Your task to perform on an android device: make emails show in primary in the gmail app Image 0: 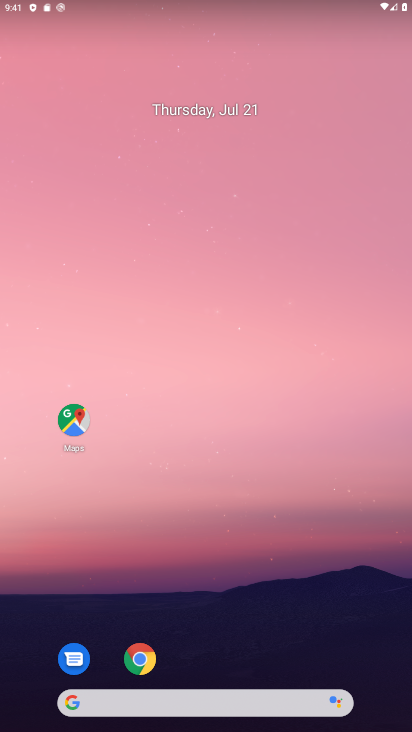
Step 0: drag from (312, 514) to (250, 67)
Your task to perform on an android device: make emails show in primary in the gmail app Image 1: 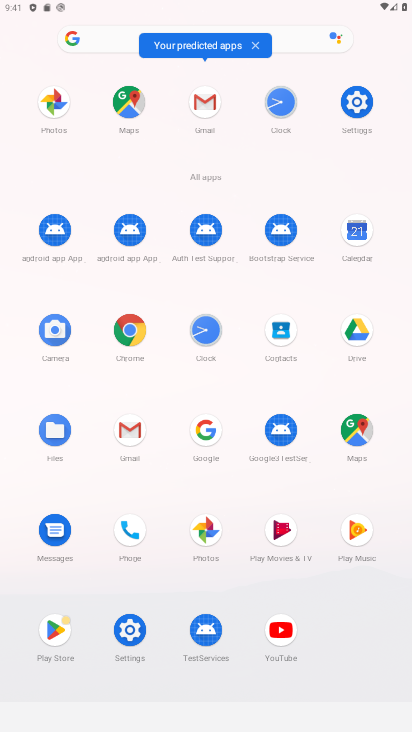
Step 1: click (210, 104)
Your task to perform on an android device: make emails show in primary in the gmail app Image 2: 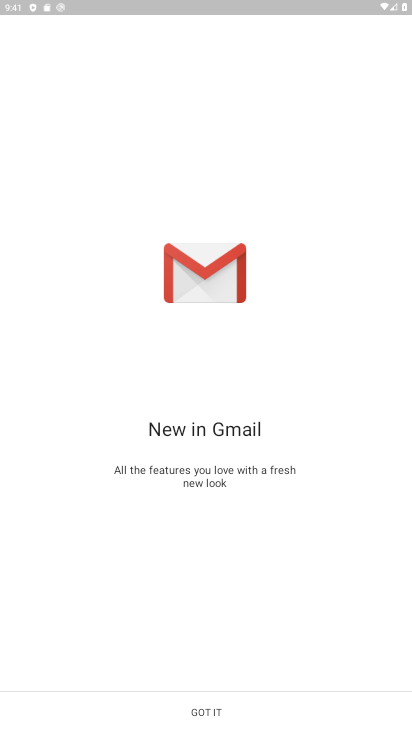
Step 2: click (268, 710)
Your task to perform on an android device: make emails show in primary in the gmail app Image 3: 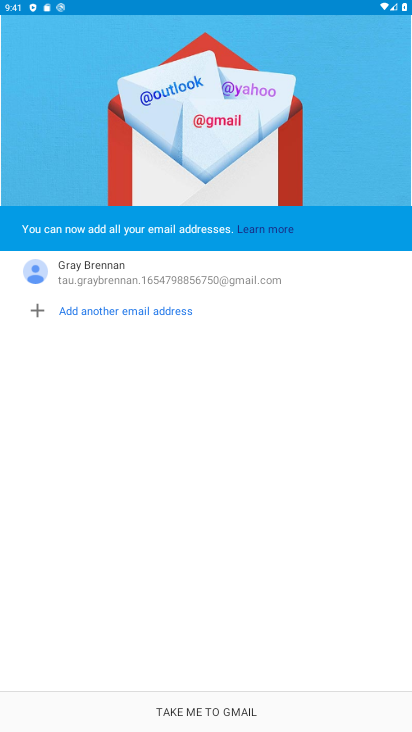
Step 3: click (268, 710)
Your task to perform on an android device: make emails show in primary in the gmail app Image 4: 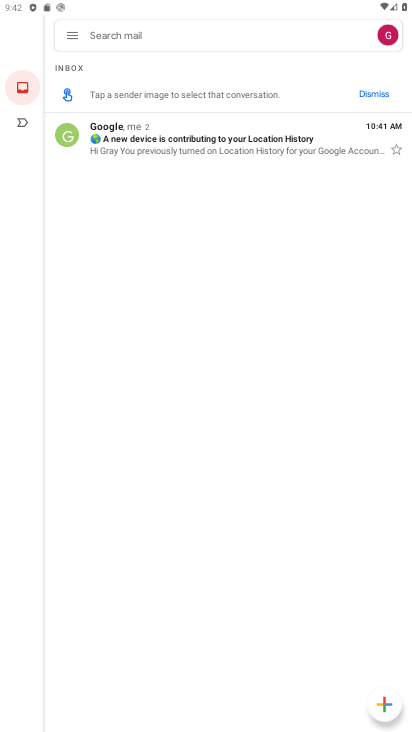
Step 4: click (75, 29)
Your task to perform on an android device: make emails show in primary in the gmail app Image 5: 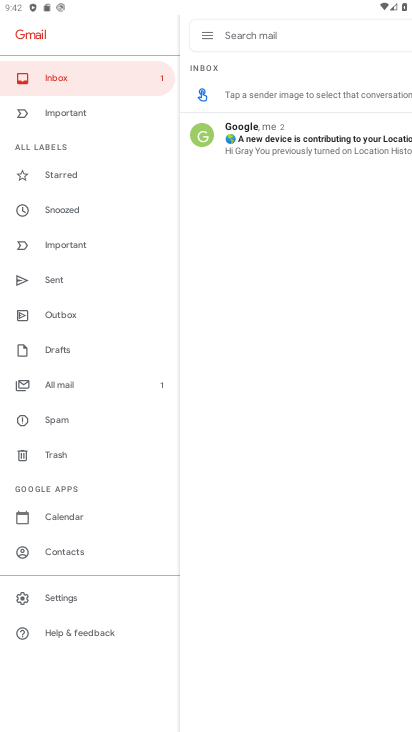
Step 5: click (69, 600)
Your task to perform on an android device: make emails show in primary in the gmail app Image 6: 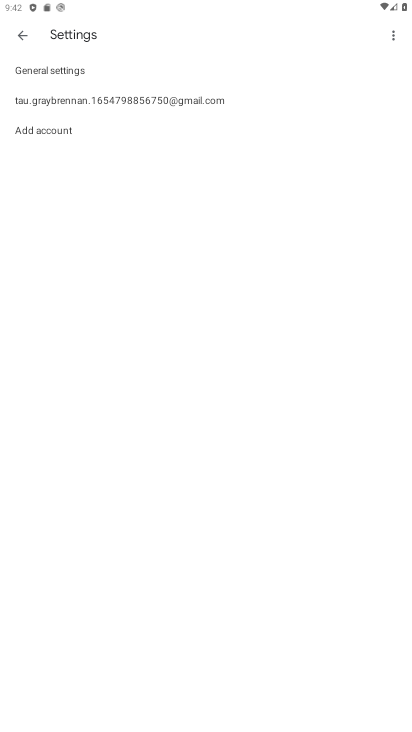
Step 6: click (143, 99)
Your task to perform on an android device: make emails show in primary in the gmail app Image 7: 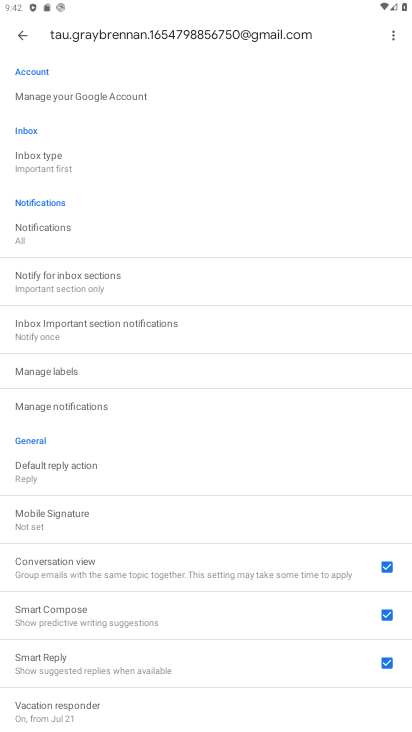
Step 7: click (57, 161)
Your task to perform on an android device: make emails show in primary in the gmail app Image 8: 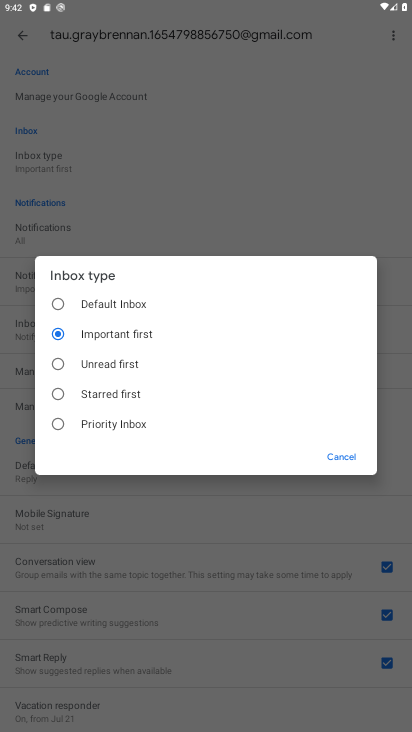
Step 8: click (107, 302)
Your task to perform on an android device: make emails show in primary in the gmail app Image 9: 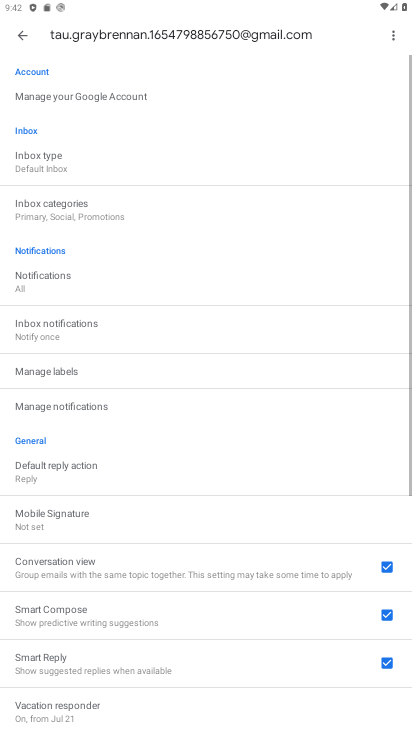
Step 9: click (53, 208)
Your task to perform on an android device: make emails show in primary in the gmail app Image 10: 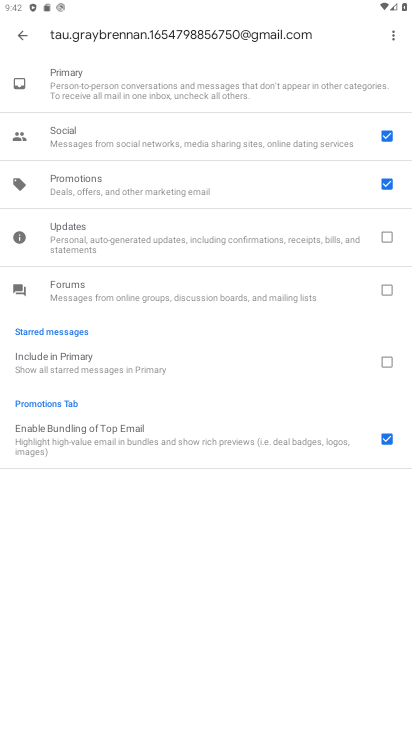
Step 10: task complete